Your task to perform on an android device: turn off javascript in the chrome app Image 0: 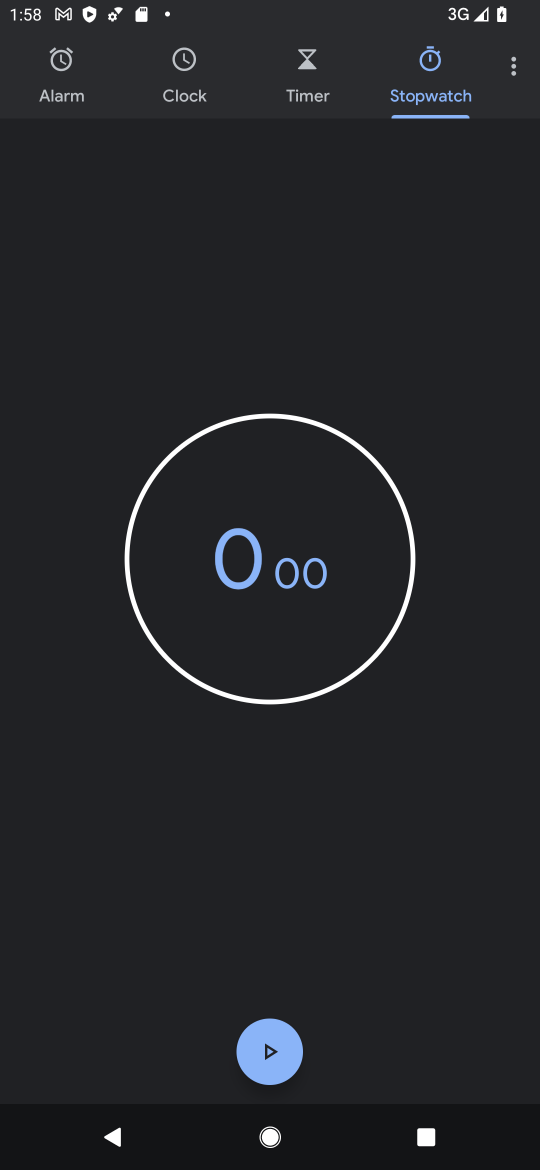
Step 0: press home button
Your task to perform on an android device: turn off javascript in the chrome app Image 1: 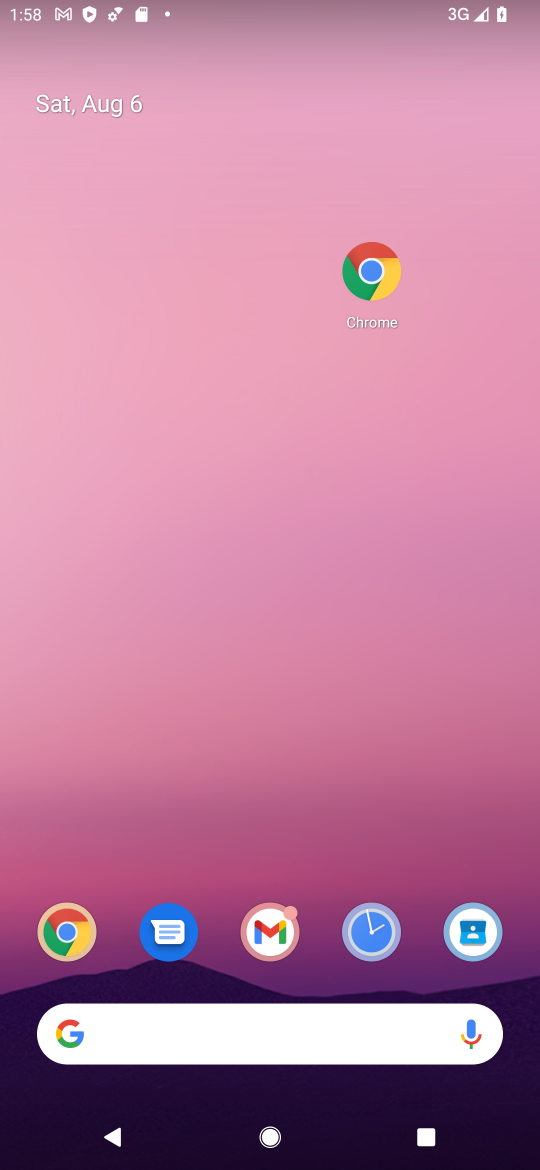
Step 1: drag from (309, 881) to (297, 93)
Your task to perform on an android device: turn off javascript in the chrome app Image 2: 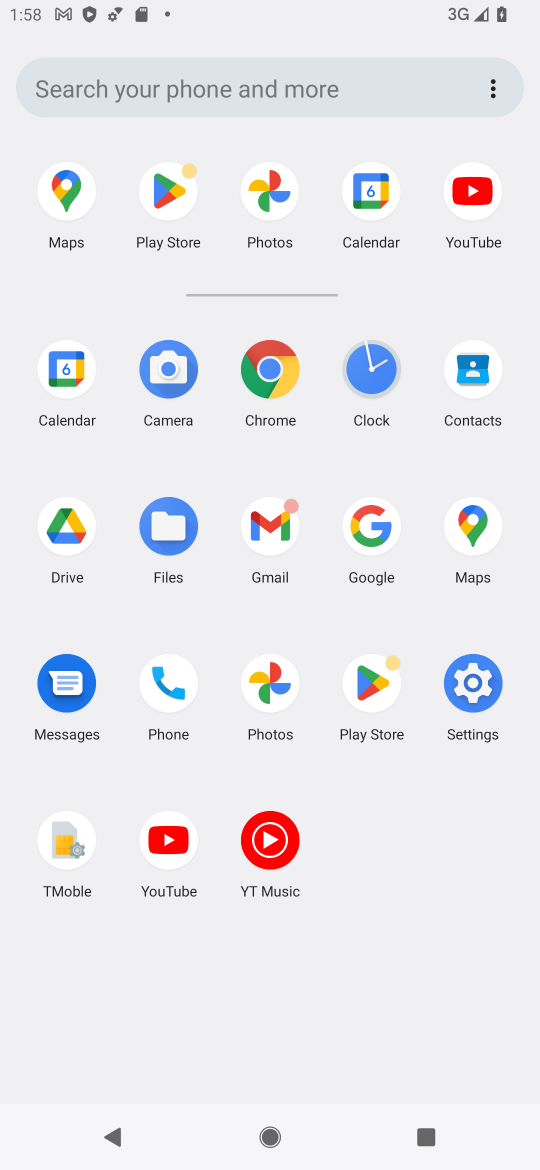
Step 2: click (276, 347)
Your task to perform on an android device: turn off javascript in the chrome app Image 3: 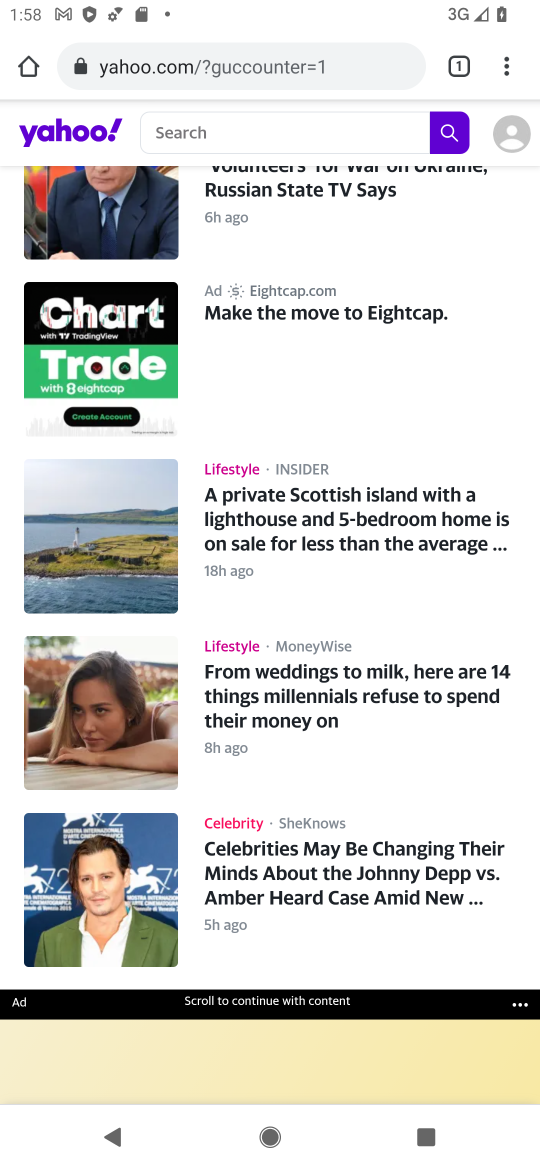
Step 3: drag from (509, 66) to (295, 872)
Your task to perform on an android device: turn off javascript in the chrome app Image 4: 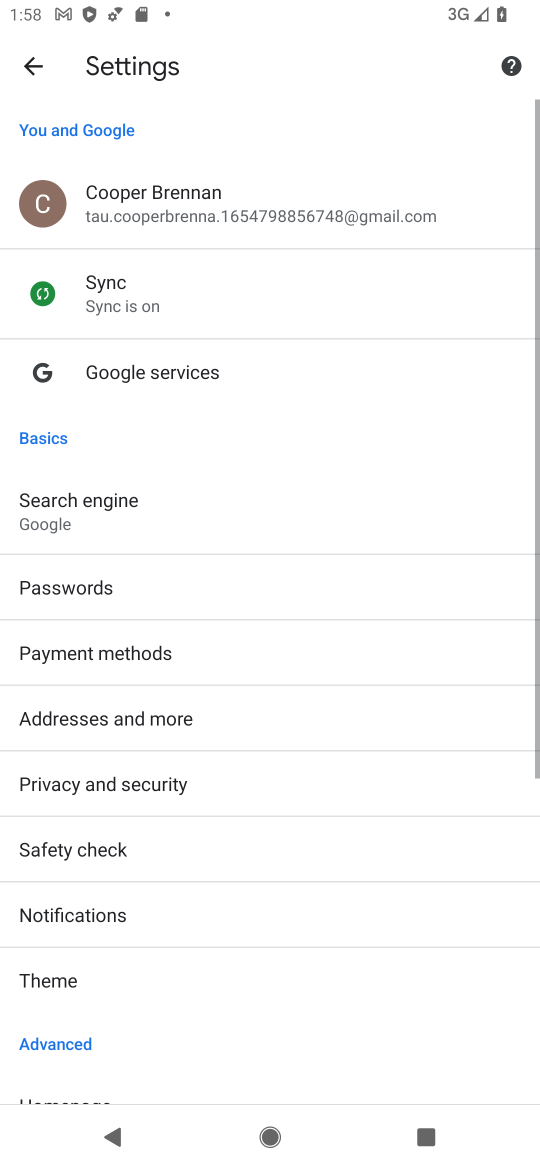
Step 4: drag from (290, 1045) to (270, 513)
Your task to perform on an android device: turn off javascript in the chrome app Image 5: 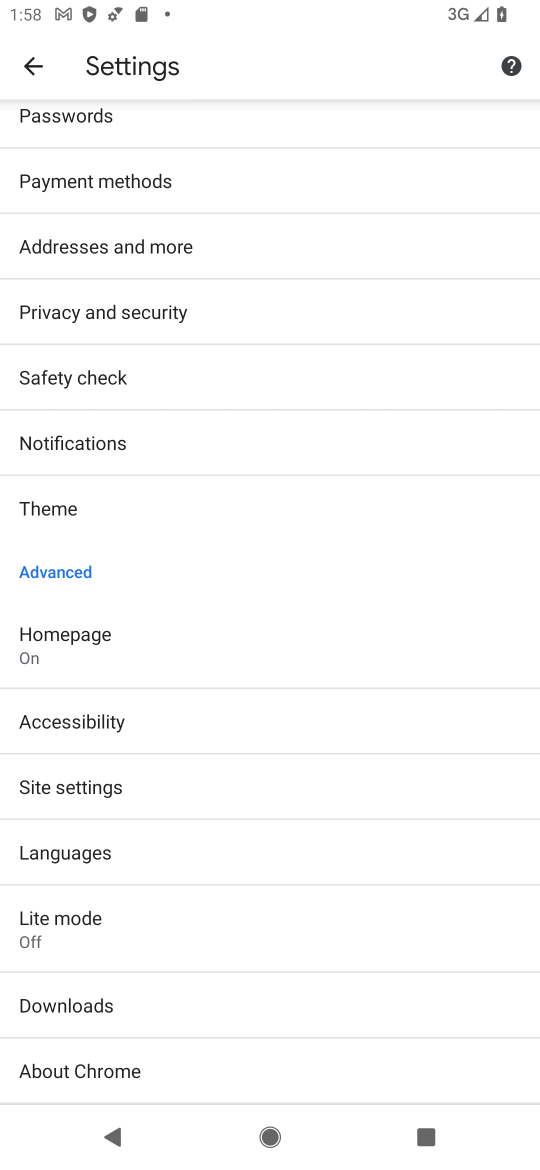
Step 5: click (110, 768)
Your task to perform on an android device: turn off javascript in the chrome app Image 6: 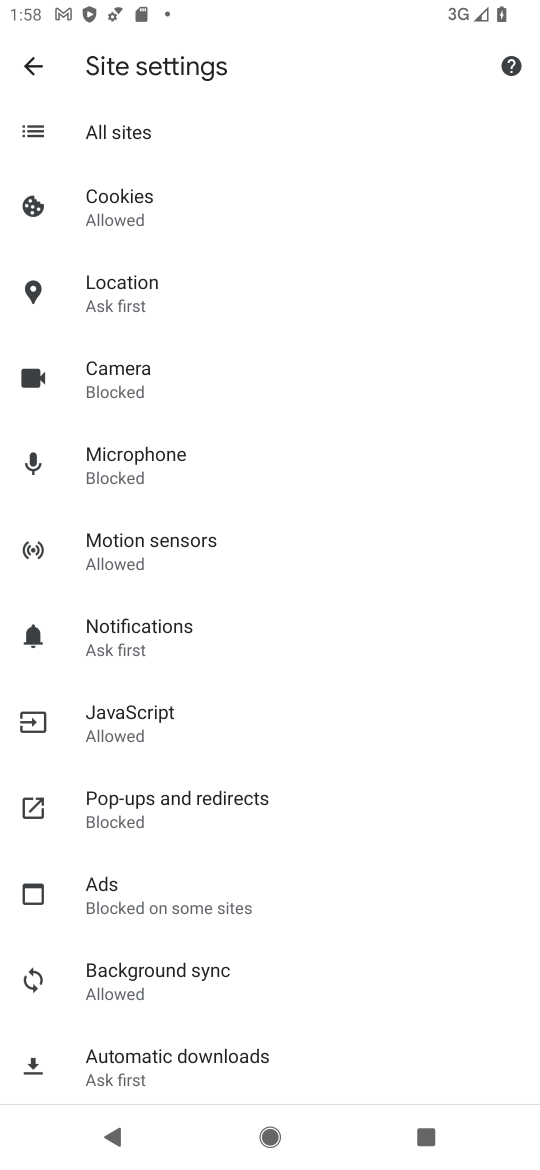
Step 6: click (106, 723)
Your task to perform on an android device: turn off javascript in the chrome app Image 7: 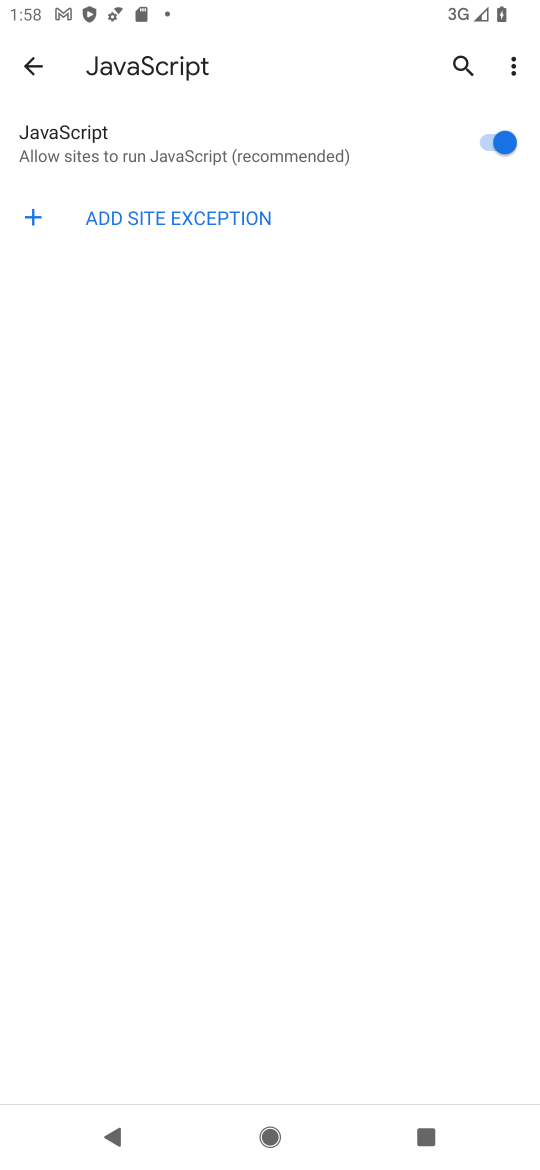
Step 7: click (437, 130)
Your task to perform on an android device: turn off javascript in the chrome app Image 8: 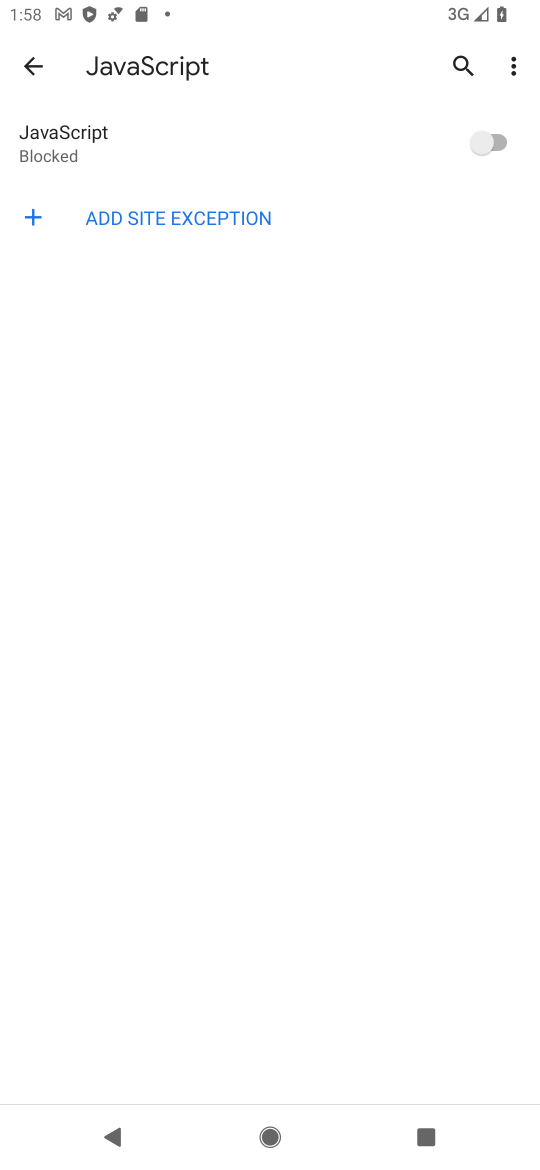
Step 8: task complete